Your task to perform on an android device: open device folders in google photos Image 0: 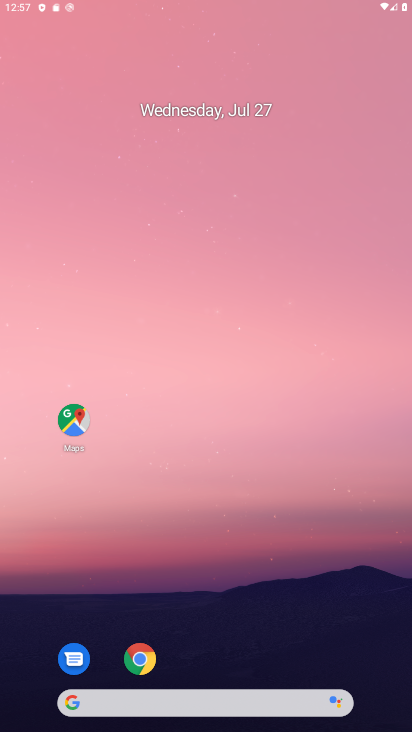
Step 0: click (261, 82)
Your task to perform on an android device: open device folders in google photos Image 1: 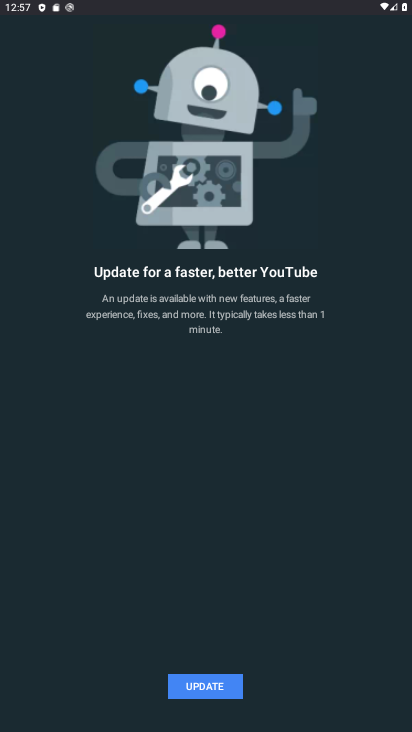
Step 1: press home button
Your task to perform on an android device: open device folders in google photos Image 2: 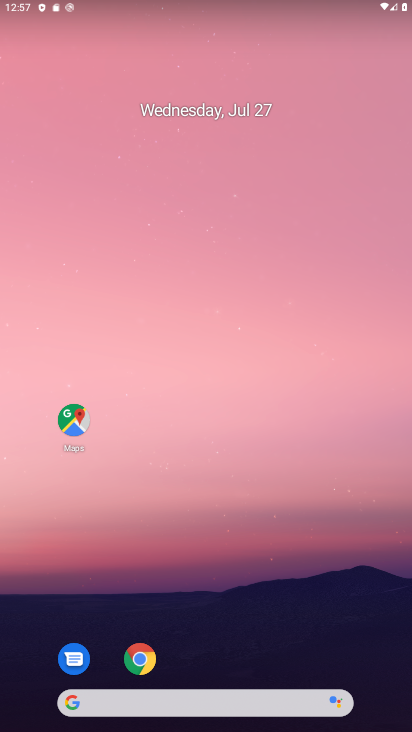
Step 2: drag from (341, 614) to (272, 64)
Your task to perform on an android device: open device folders in google photos Image 3: 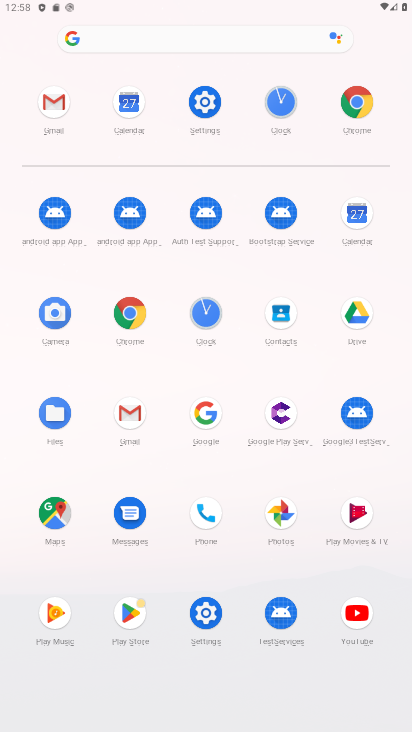
Step 3: click (279, 513)
Your task to perform on an android device: open device folders in google photos Image 4: 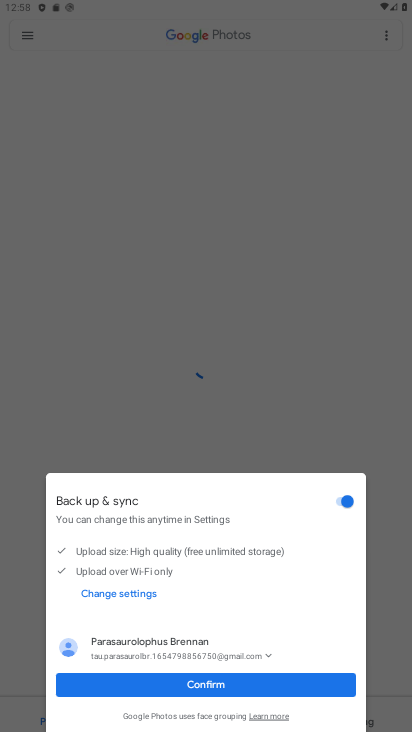
Step 4: click (246, 684)
Your task to perform on an android device: open device folders in google photos Image 5: 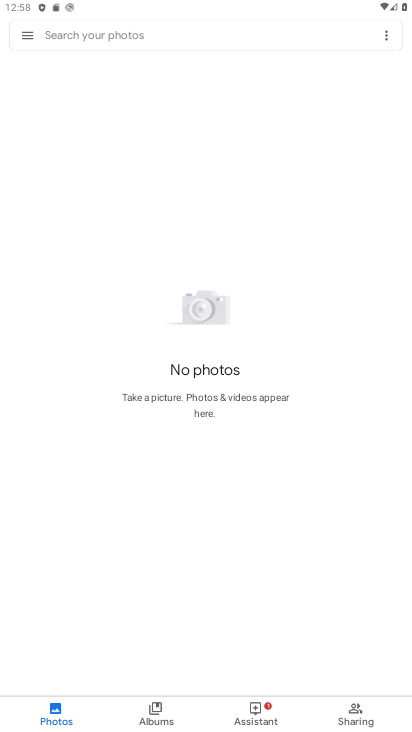
Step 5: task complete